Your task to perform on an android device: Go to Google maps Image 0: 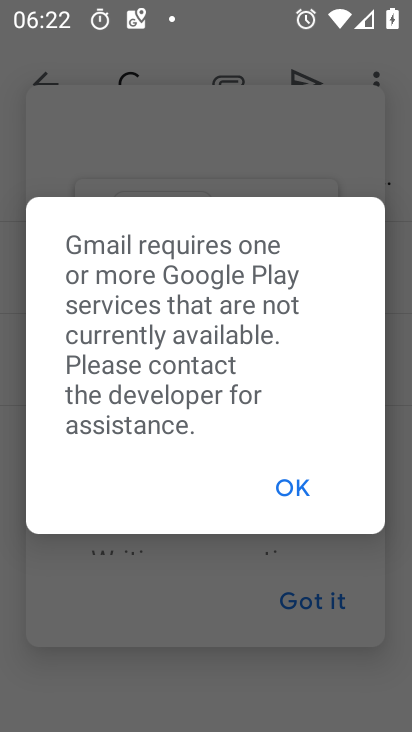
Step 0: press home button
Your task to perform on an android device: Go to Google maps Image 1: 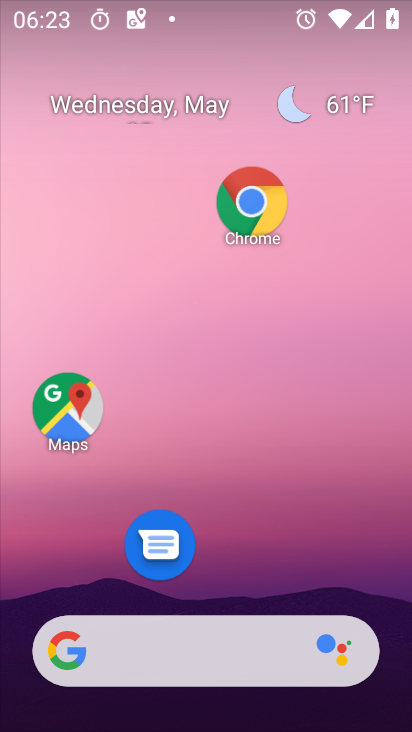
Step 1: drag from (270, 607) to (270, 321)
Your task to perform on an android device: Go to Google maps Image 2: 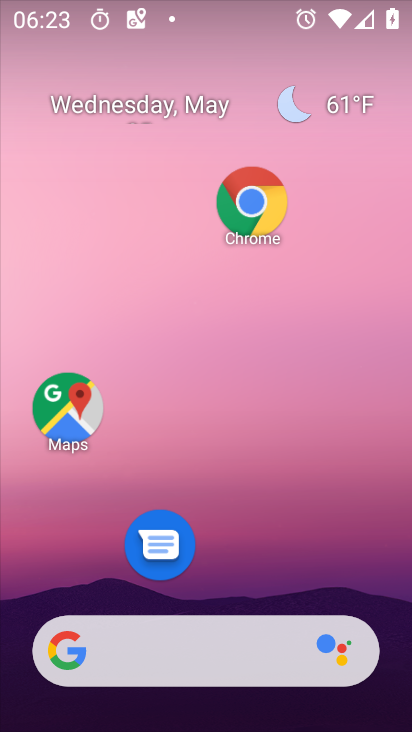
Step 2: click (55, 405)
Your task to perform on an android device: Go to Google maps Image 3: 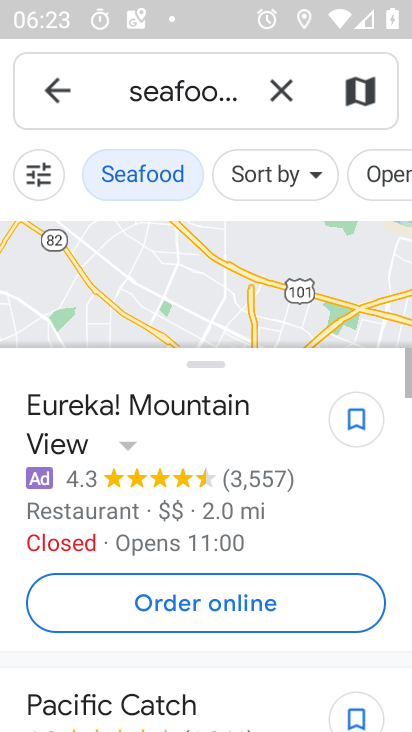
Step 3: click (282, 79)
Your task to perform on an android device: Go to Google maps Image 4: 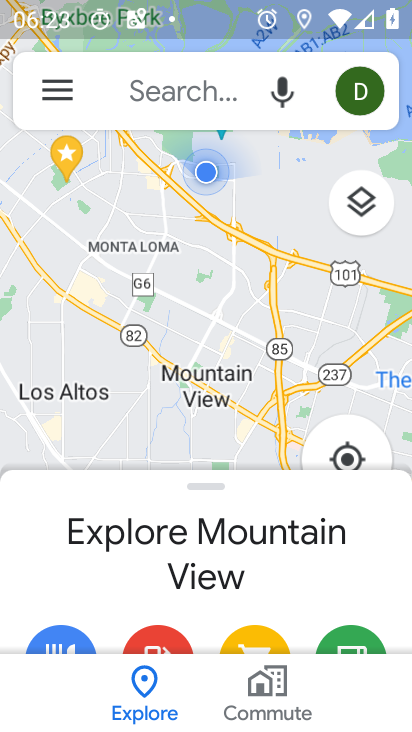
Step 4: task complete